Your task to perform on an android device: What is the news today? Image 0: 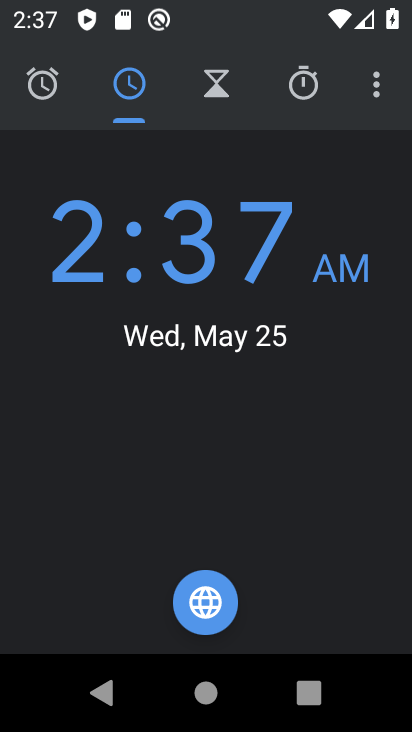
Step 0: press back button
Your task to perform on an android device: What is the news today? Image 1: 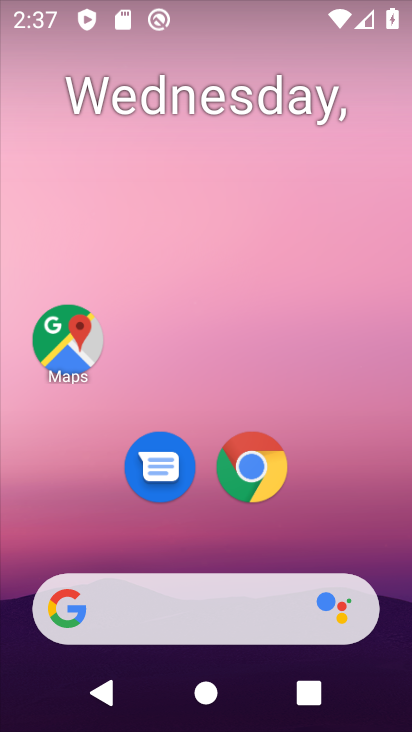
Step 1: task complete